Your task to perform on an android device: View the shopping cart on walmart. Image 0: 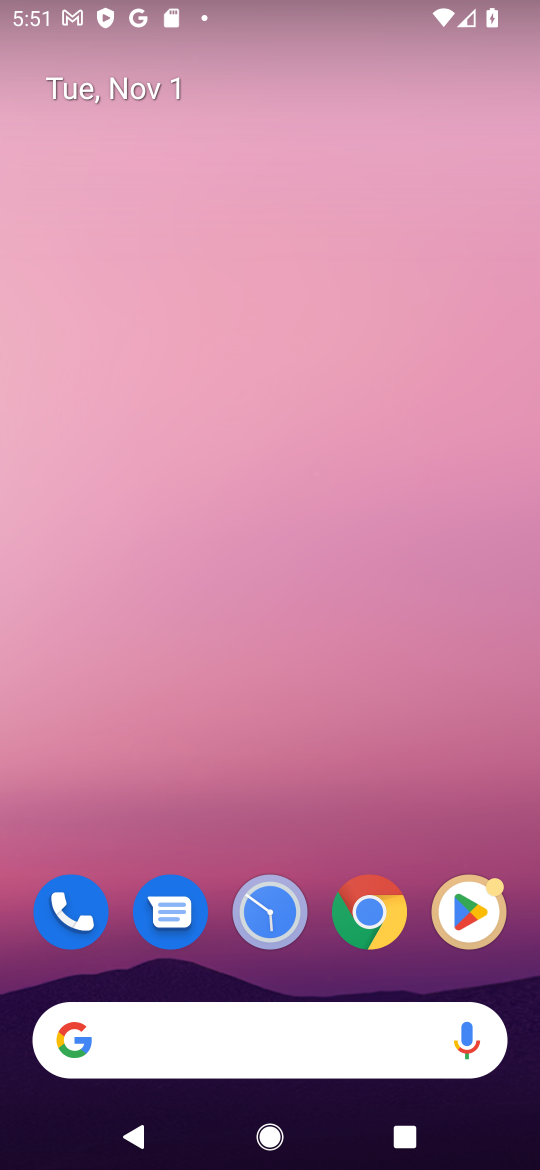
Step 0: click (362, 927)
Your task to perform on an android device: View the shopping cart on walmart. Image 1: 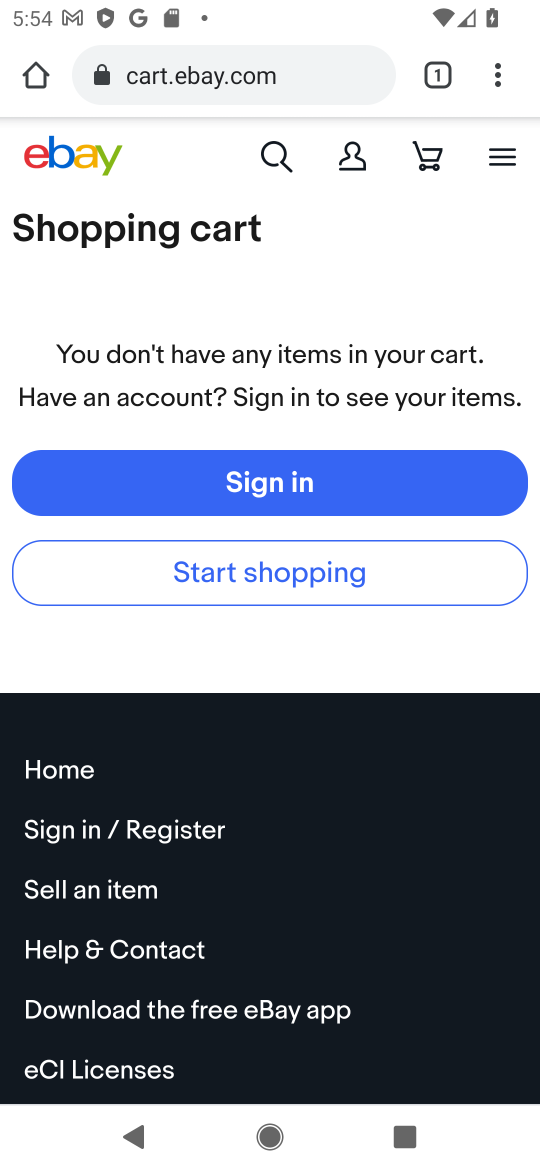
Step 1: click (264, 161)
Your task to perform on an android device: View the shopping cart on walmart. Image 2: 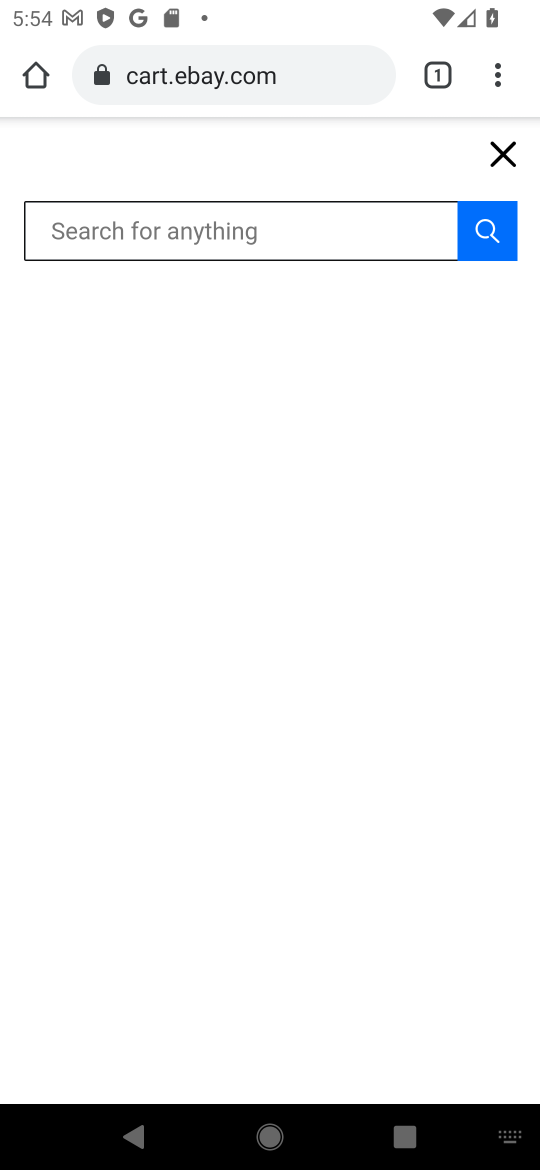
Step 2: click (128, 61)
Your task to perform on an android device: View the shopping cart on walmart. Image 3: 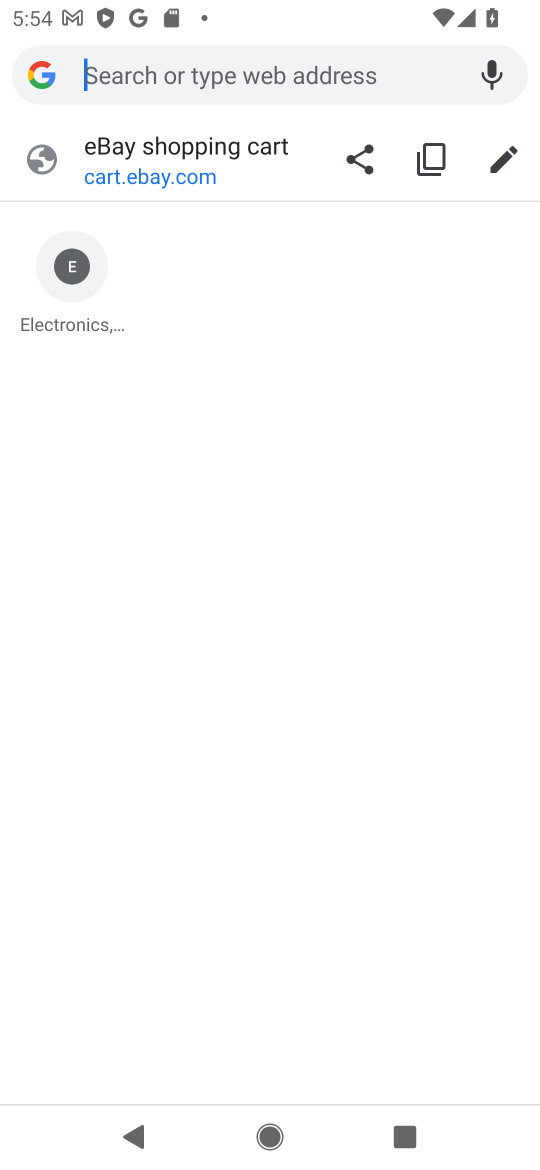
Step 3: click (297, 79)
Your task to perform on an android device: View the shopping cart on walmart. Image 4: 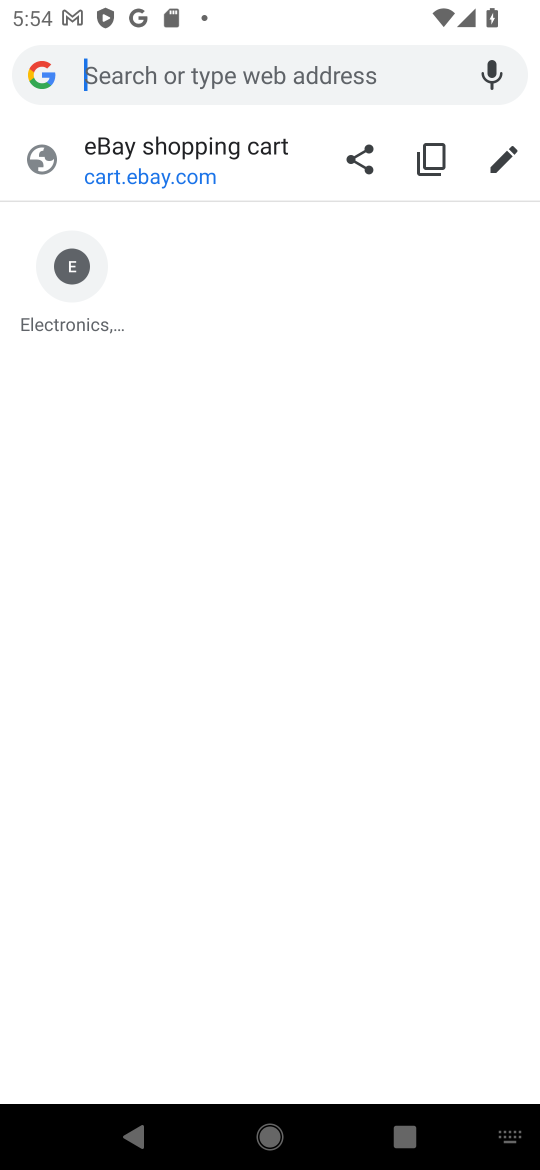
Step 4: type "walmart"
Your task to perform on an android device: View the shopping cart on walmart. Image 5: 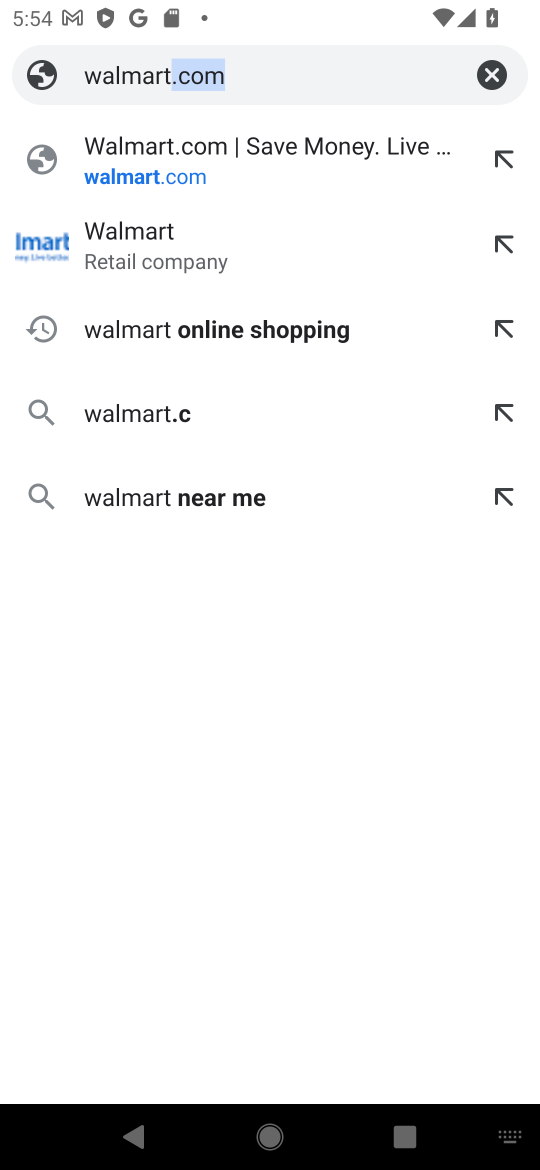
Step 5: click (237, 162)
Your task to perform on an android device: View the shopping cart on walmart. Image 6: 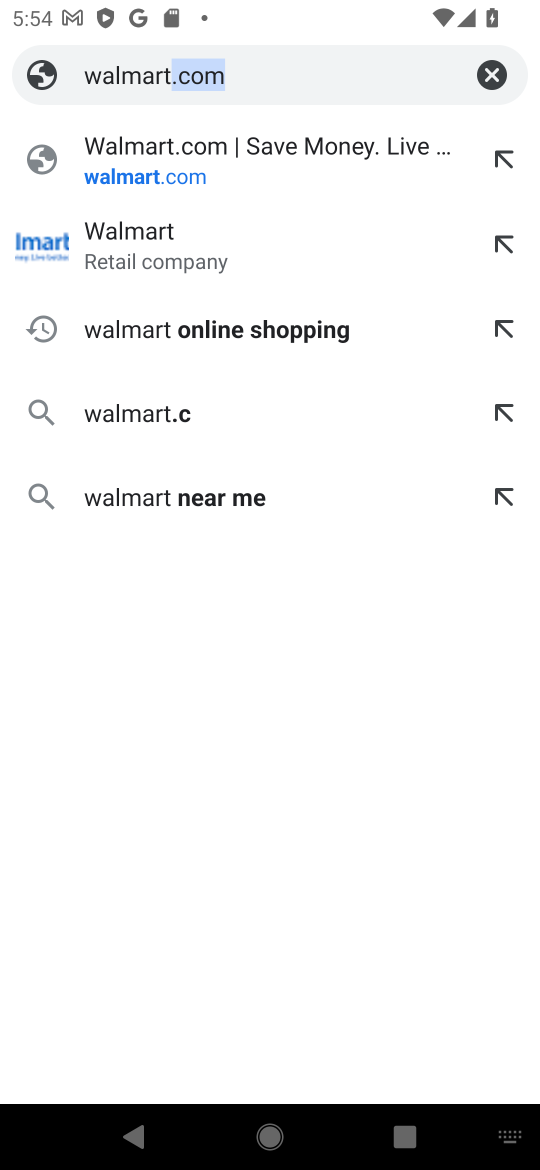
Step 6: click (237, 162)
Your task to perform on an android device: View the shopping cart on walmart. Image 7: 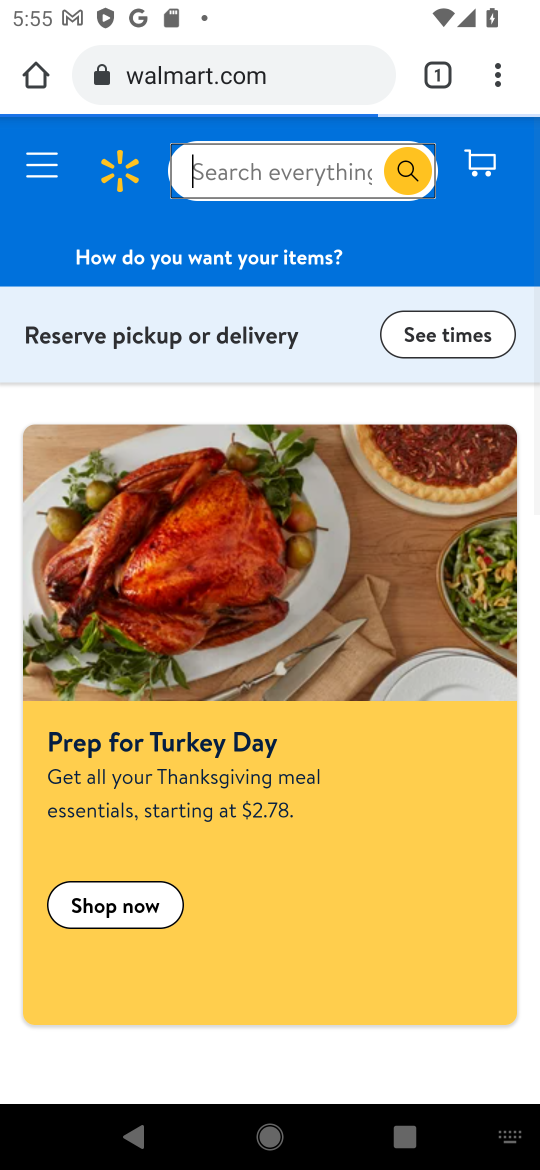
Step 7: click (237, 162)
Your task to perform on an android device: View the shopping cart on walmart. Image 8: 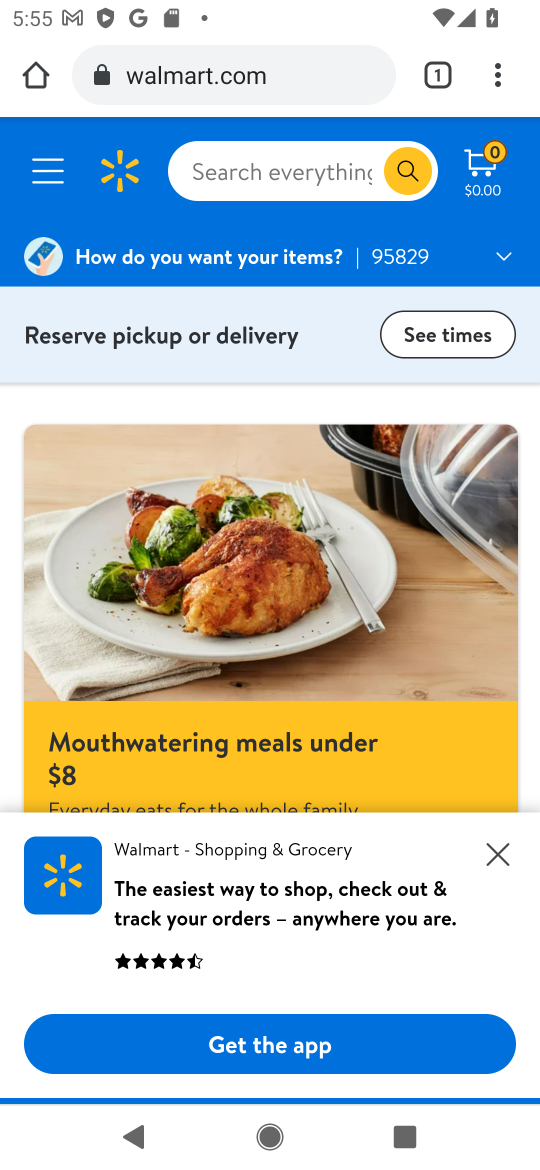
Step 8: click (467, 157)
Your task to perform on an android device: View the shopping cart on walmart. Image 9: 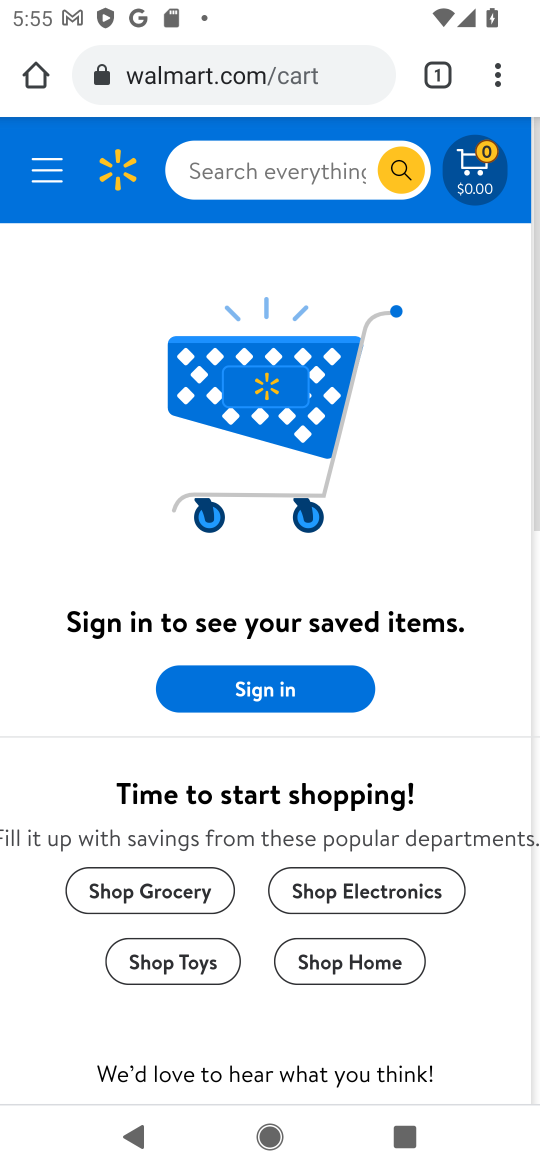
Step 9: click (384, 159)
Your task to perform on an android device: View the shopping cart on walmart. Image 10: 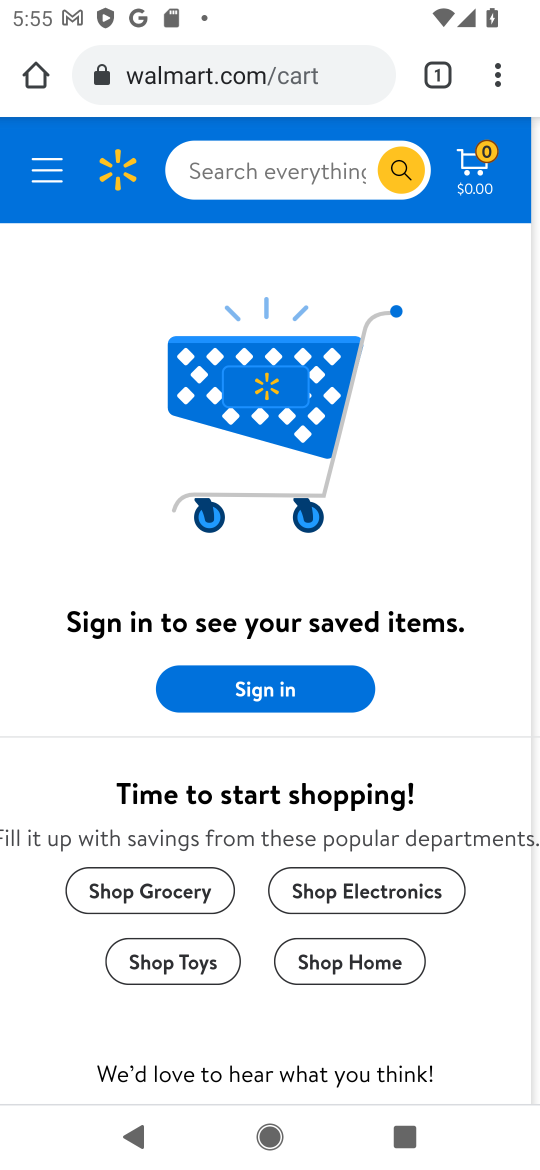
Step 10: task complete